Your task to perform on an android device: open sync settings in chrome Image 0: 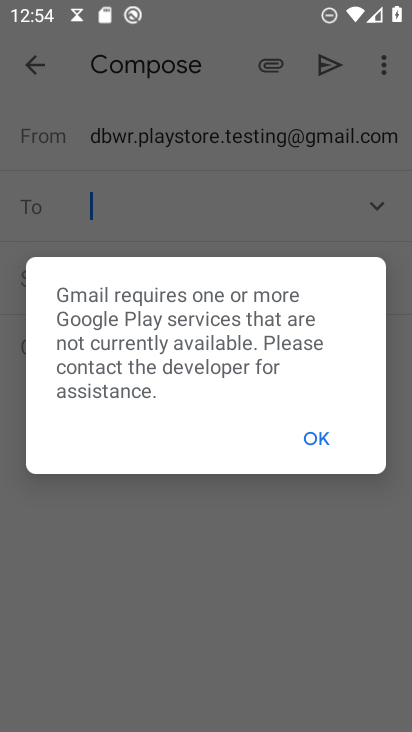
Step 0: press home button
Your task to perform on an android device: open sync settings in chrome Image 1: 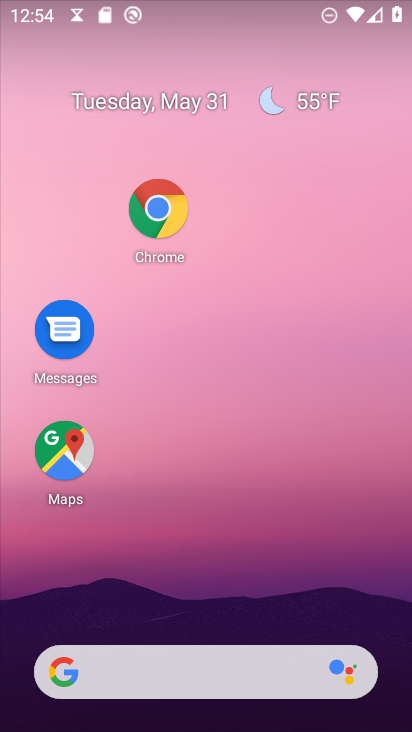
Step 1: click (265, 523)
Your task to perform on an android device: open sync settings in chrome Image 2: 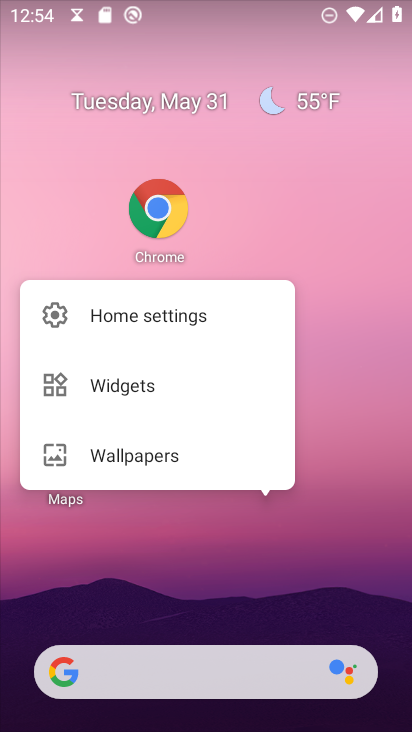
Step 2: click (176, 253)
Your task to perform on an android device: open sync settings in chrome Image 3: 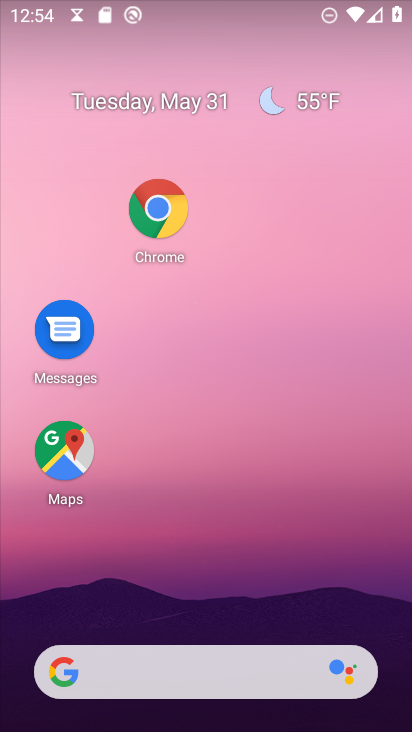
Step 3: click (166, 217)
Your task to perform on an android device: open sync settings in chrome Image 4: 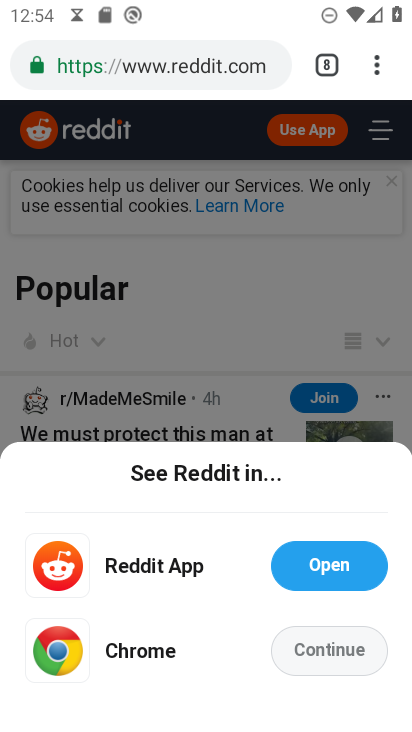
Step 4: click (376, 66)
Your task to perform on an android device: open sync settings in chrome Image 5: 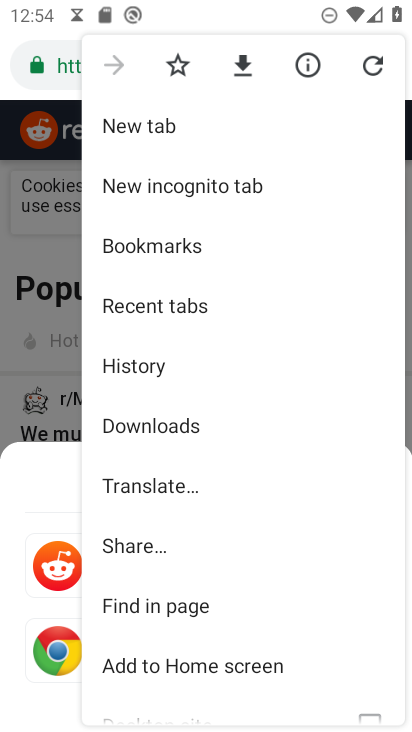
Step 5: drag from (164, 645) to (176, 389)
Your task to perform on an android device: open sync settings in chrome Image 6: 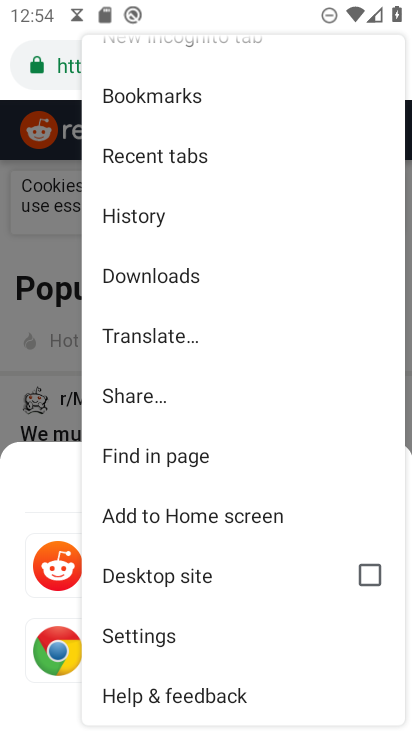
Step 6: click (151, 645)
Your task to perform on an android device: open sync settings in chrome Image 7: 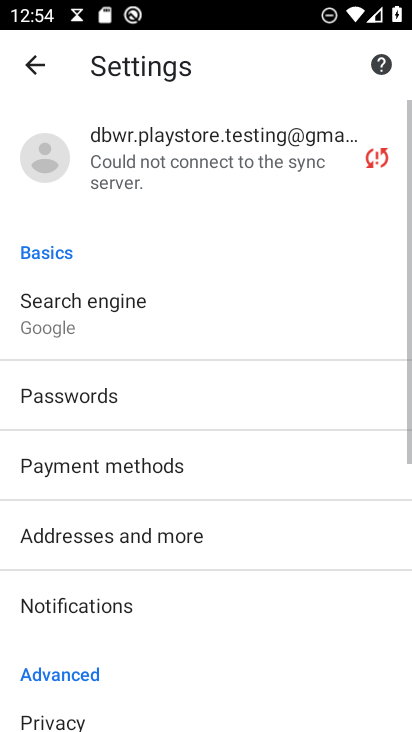
Step 7: drag from (151, 645) to (159, 305)
Your task to perform on an android device: open sync settings in chrome Image 8: 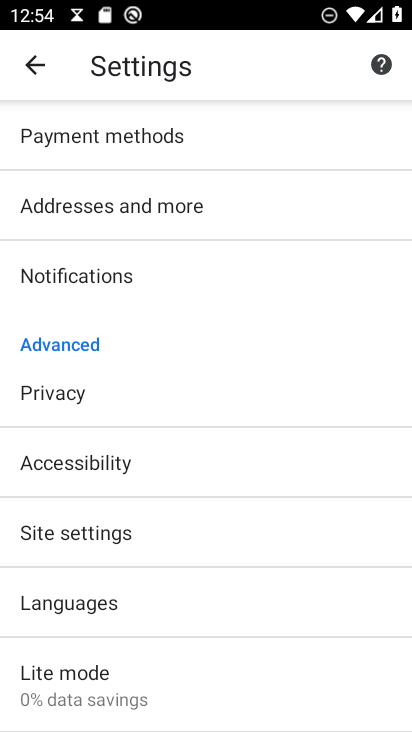
Step 8: click (89, 533)
Your task to perform on an android device: open sync settings in chrome Image 9: 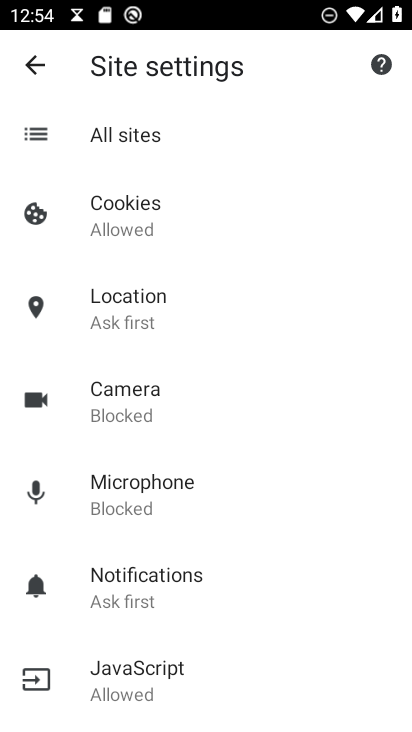
Step 9: drag from (186, 715) to (165, 236)
Your task to perform on an android device: open sync settings in chrome Image 10: 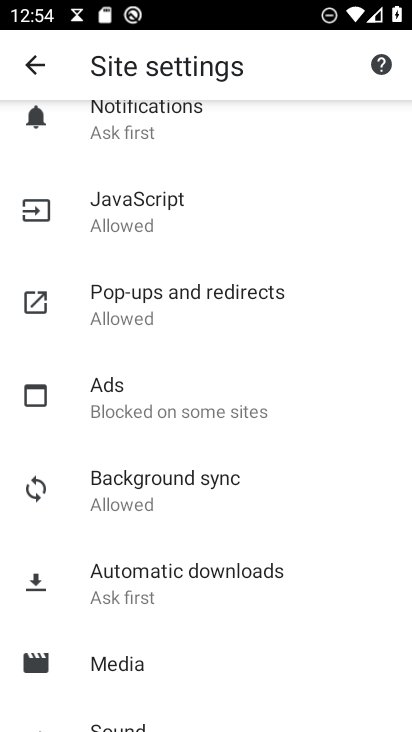
Step 10: click (138, 493)
Your task to perform on an android device: open sync settings in chrome Image 11: 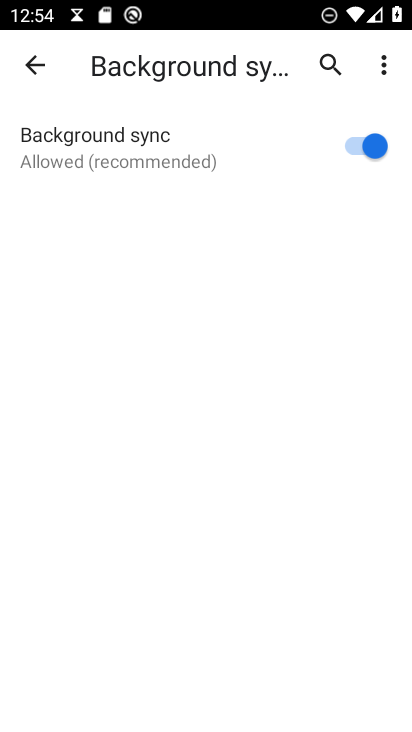
Step 11: task complete